Your task to perform on an android device: turn off picture-in-picture Image 0: 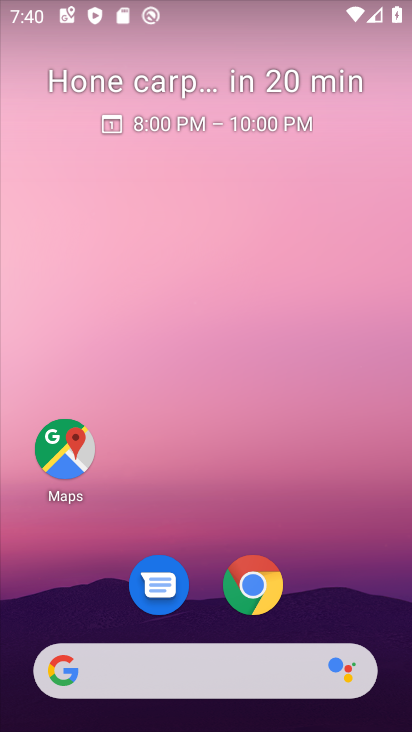
Step 0: click (242, 585)
Your task to perform on an android device: turn off picture-in-picture Image 1: 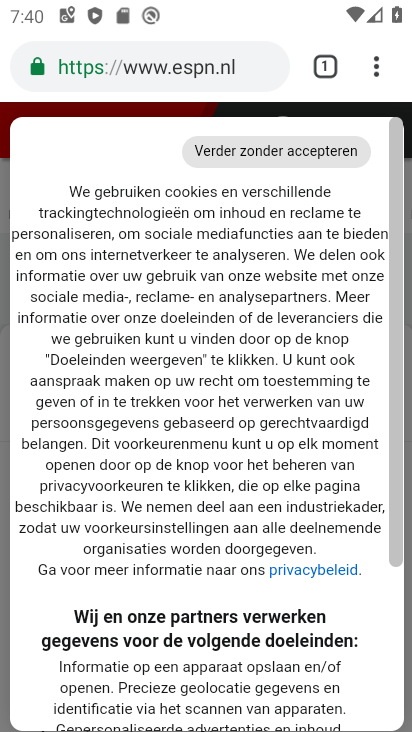
Step 1: press back button
Your task to perform on an android device: turn off picture-in-picture Image 2: 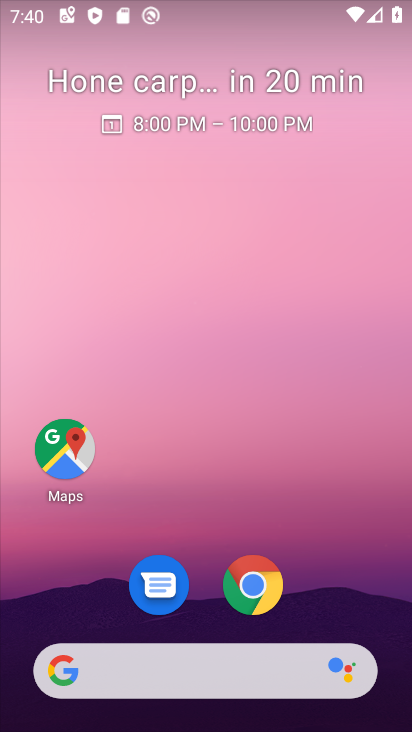
Step 2: click (257, 568)
Your task to perform on an android device: turn off picture-in-picture Image 3: 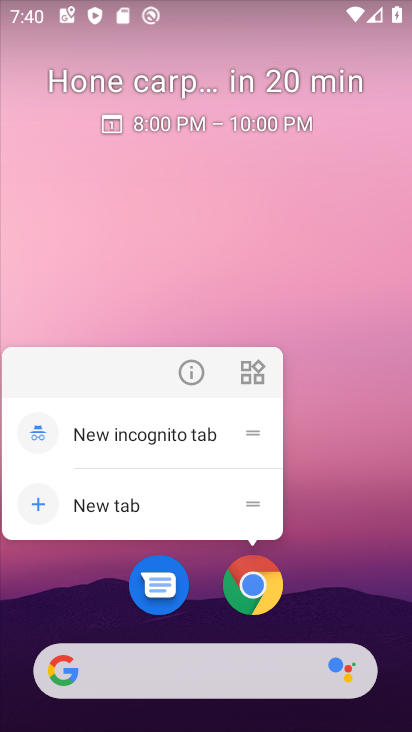
Step 3: click (194, 378)
Your task to perform on an android device: turn off picture-in-picture Image 4: 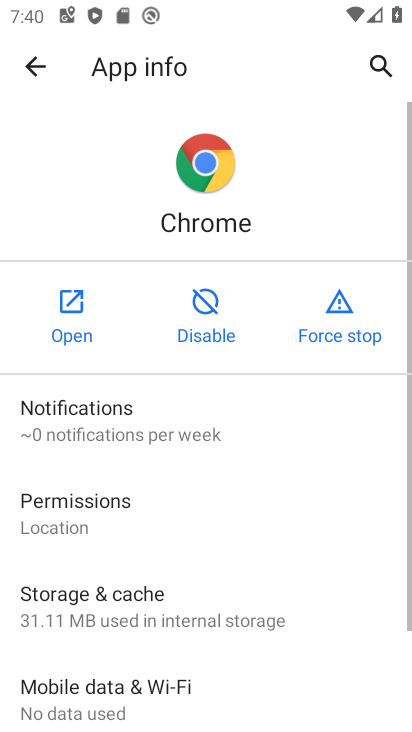
Step 4: drag from (217, 559) to (259, 212)
Your task to perform on an android device: turn off picture-in-picture Image 5: 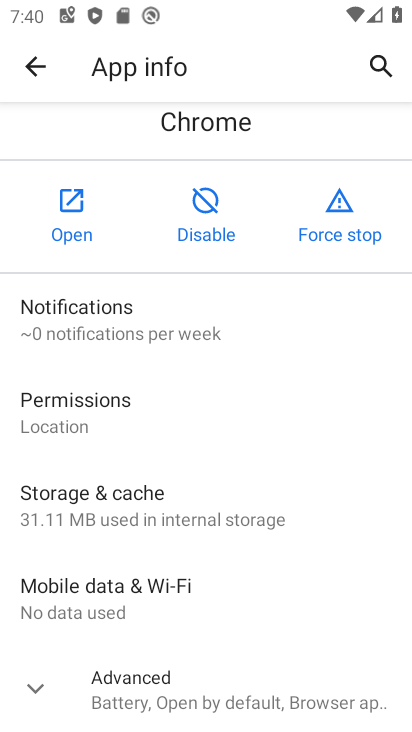
Step 5: click (32, 684)
Your task to perform on an android device: turn off picture-in-picture Image 6: 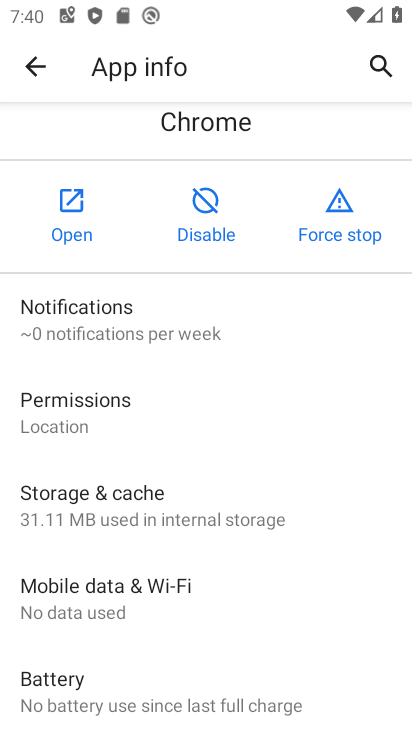
Step 6: drag from (258, 600) to (307, 173)
Your task to perform on an android device: turn off picture-in-picture Image 7: 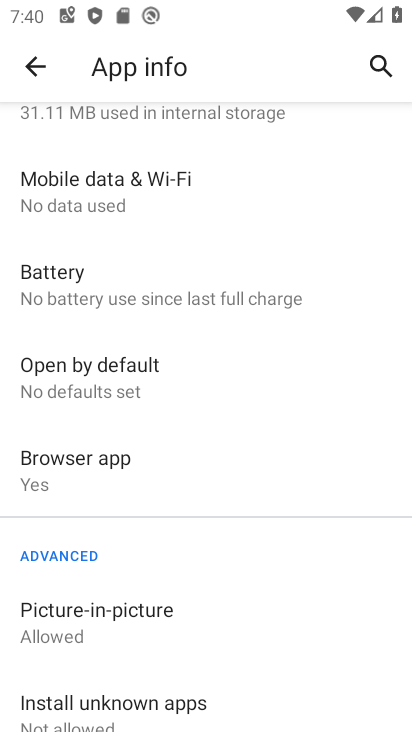
Step 7: click (108, 630)
Your task to perform on an android device: turn off picture-in-picture Image 8: 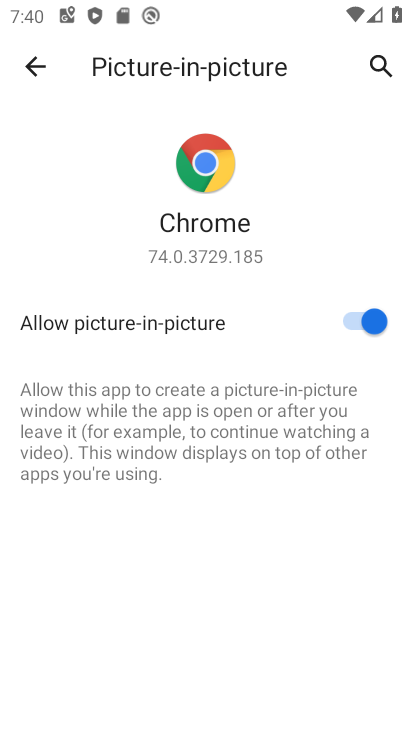
Step 8: click (354, 316)
Your task to perform on an android device: turn off picture-in-picture Image 9: 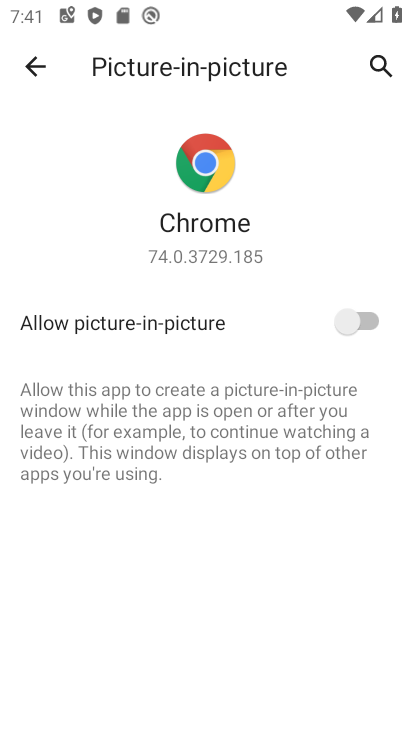
Step 9: task complete